Your task to perform on an android device: turn smart compose on in the gmail app Image 0: 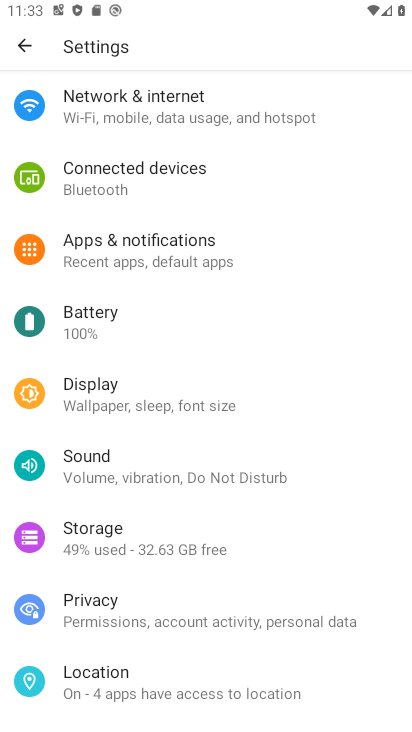
Step 0: press back button
Your task to perform on an android device: turn smart compose on in the gmail app Image 1: 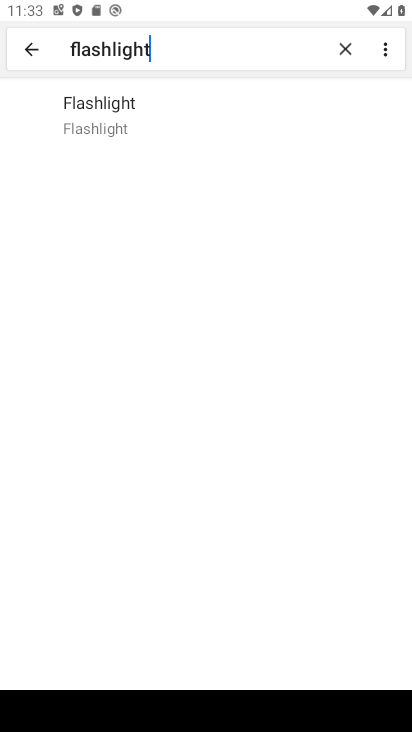
Step 1: press back button
Your task to perform on an android device: turn smart compose on in the gmail app Image 2: 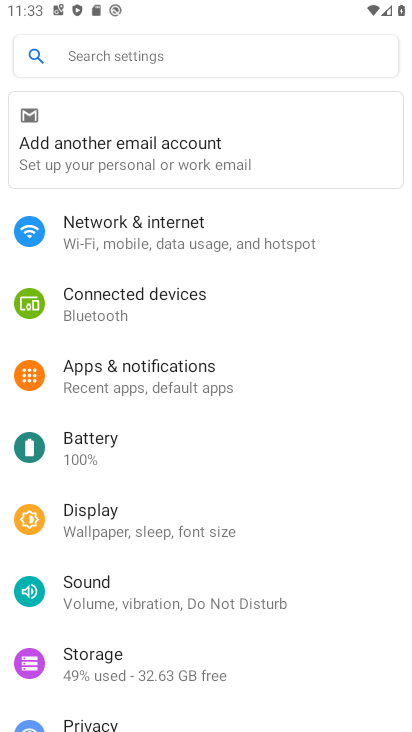
Step 2: press back button
Your task to perform on an android device: turn smart compose on in the gmail app Image 3: 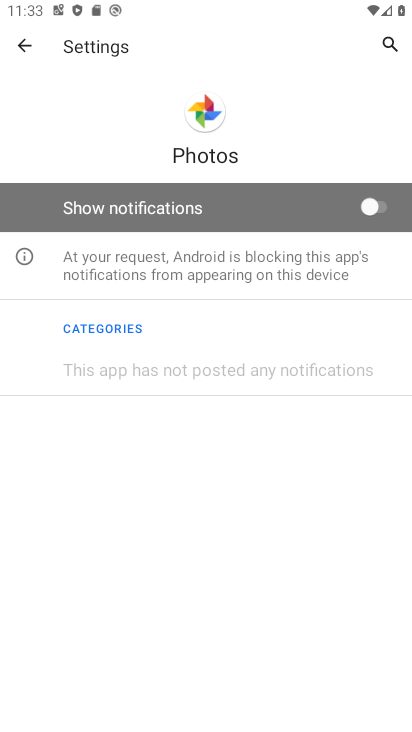
Step 3: press back button
Your task to perform on an android device: turn smart compose on in the gmail app Image 4: 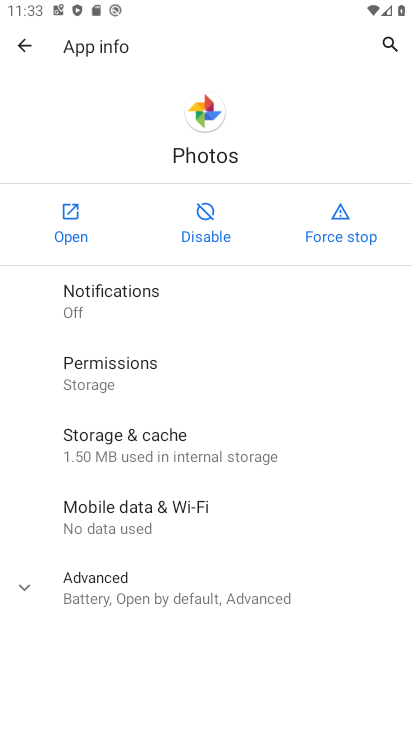
Step 4: press back button
Your task to perform on an android device: turn smart compose on in the gmail app Image 5: 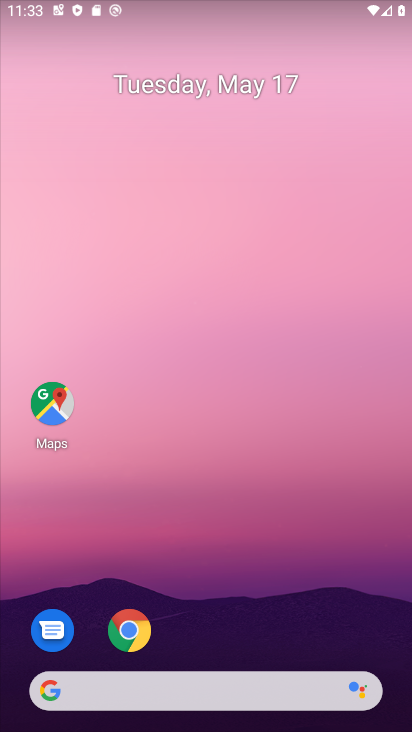
Step 5: drag from (206, 606) to (276, 76)
Your task to perform on an android device: turn smart compose on in the gmail app Image 6: 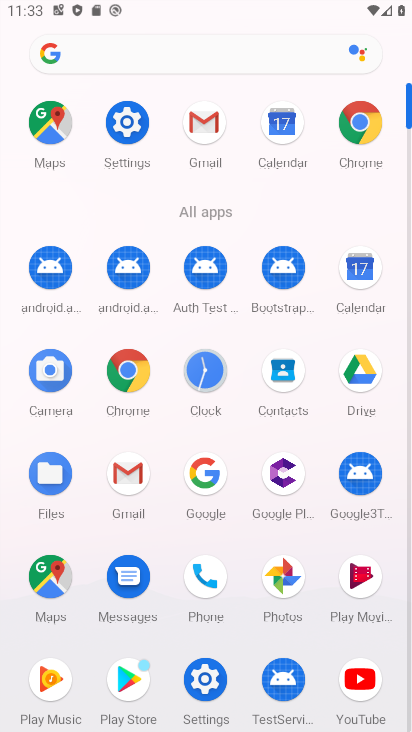
Step 6: click (207, 115)
Your task to perform on an android device: turn smart compose on in the gmail app Image 7: 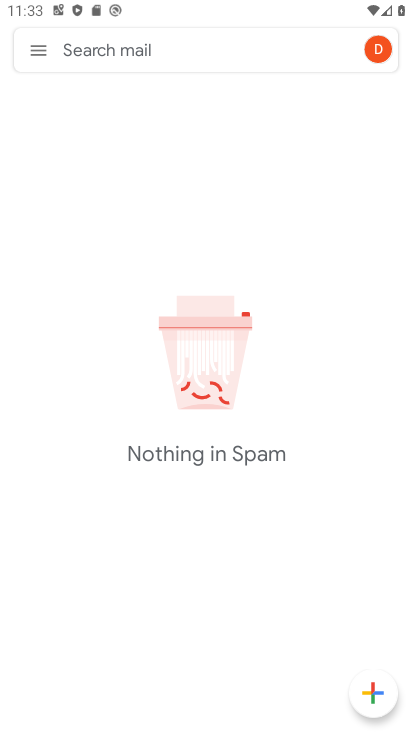
Step 7: click (37, 49)
Your task to perform on an android device: turn smart compose on in the gmail app Image 8: 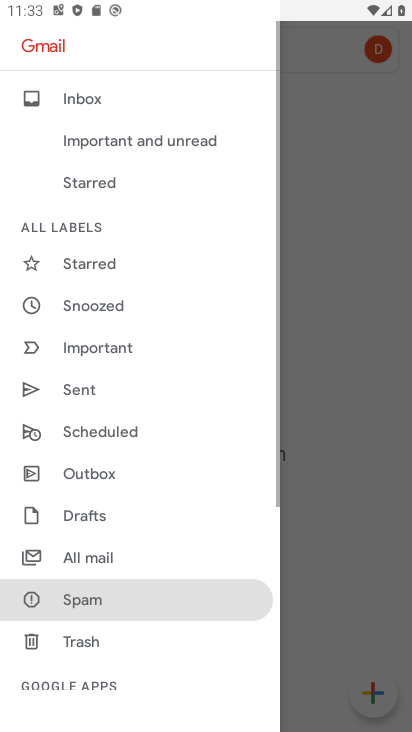
Step 8: drag from (132, 639) to (183, 59)
Your task to perform on an android device: turn smart compose on in the gmail app Image 9: 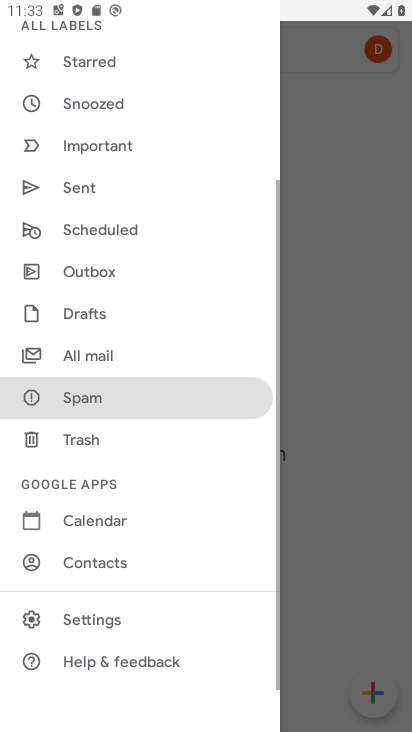
Step 9: click (97, 618)
Your task to perform on an android device: turn smart compose on in the gmail app Image 10: 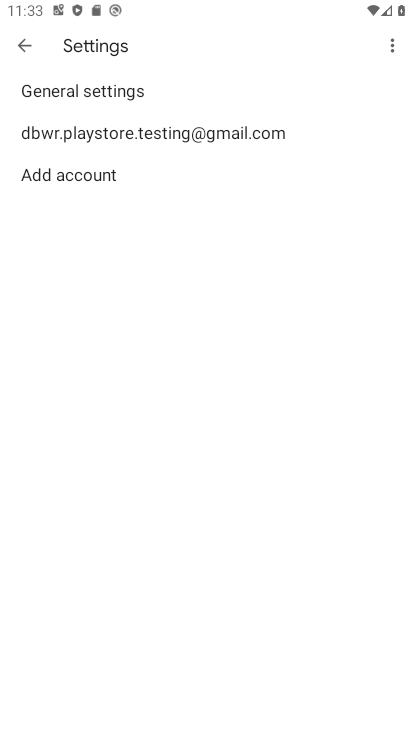
Step 10: click (139, 119)
Your task to perform on an android device: turn smart compose on in the gmail app Image 11: 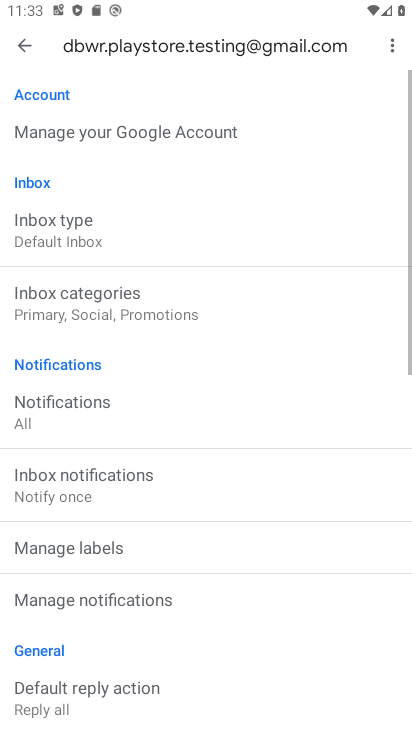
Step 11: task complete